Your task to perform on an android device: uninstall "Walmart Shopping & Grocery" Image 0: 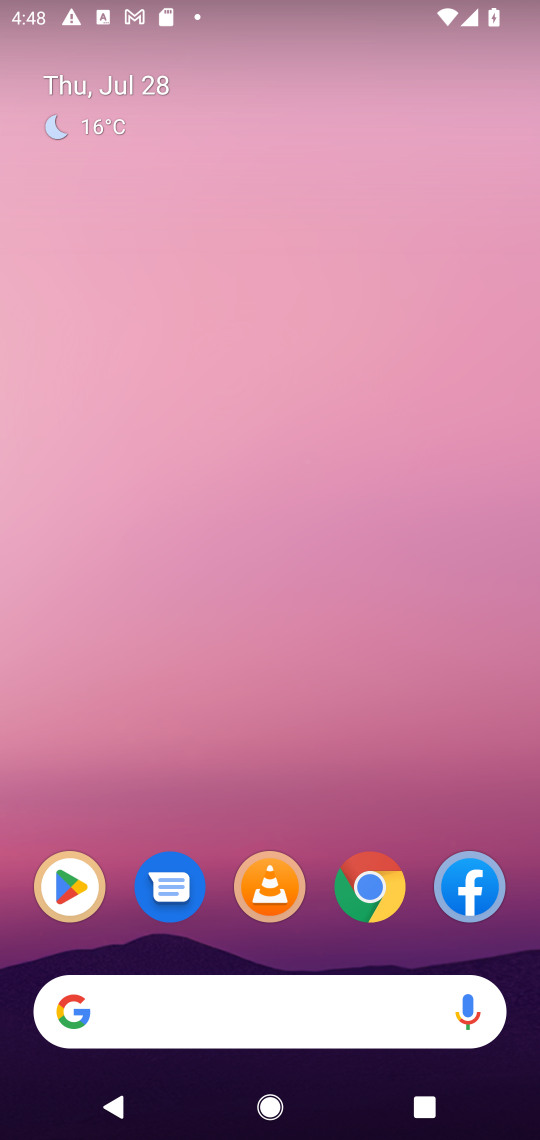
Step 0: click (64, 898)
Your task to perform on an android device: uninstall "Walmart Shopping & Grocery" Image 1: 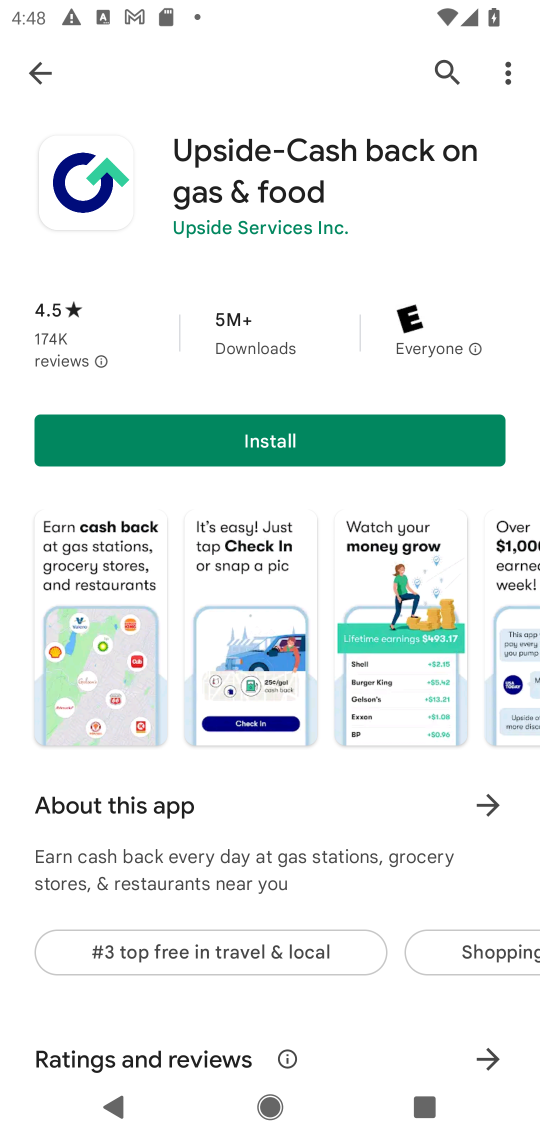
Step 1: click (39, 70)
Your task to perform on an android device: uninstall "Walmart Shopping & Grocery" Image 2: 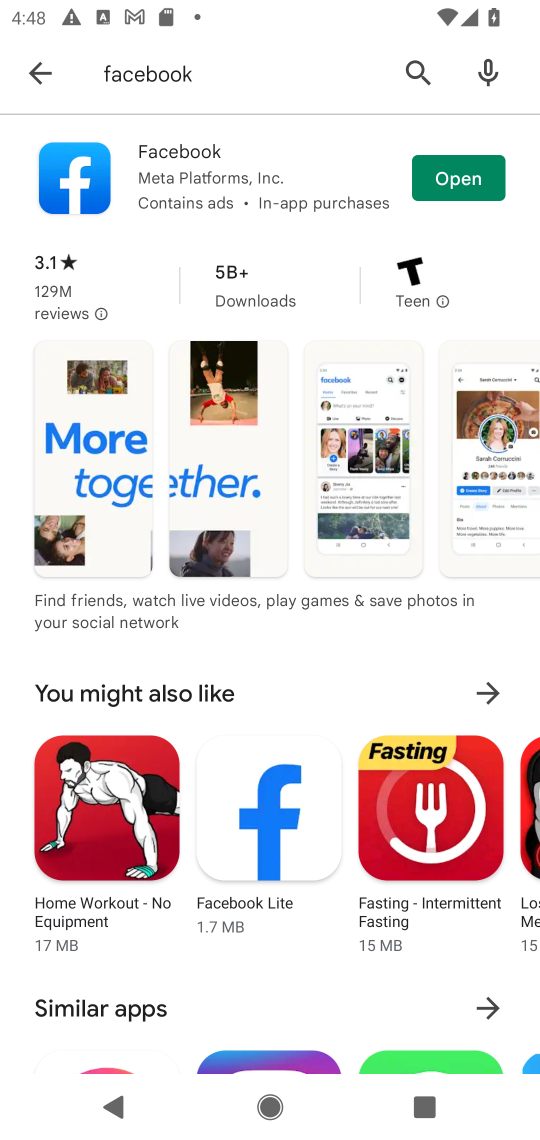
Step 2: click (191, 70)
Your task to perform on an android device: uninstall "Walmart Shopping & Grocery" Image 3: 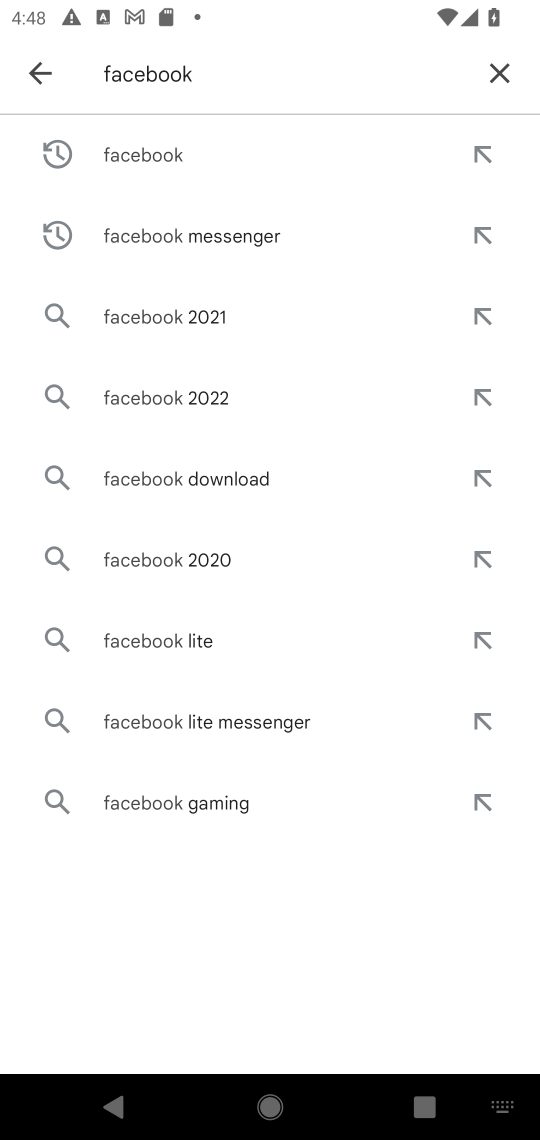
Step 3: click (504, 72)
Your task to perform on an android device: uninstall "Walmart Shopping & Grocery" Image 4: 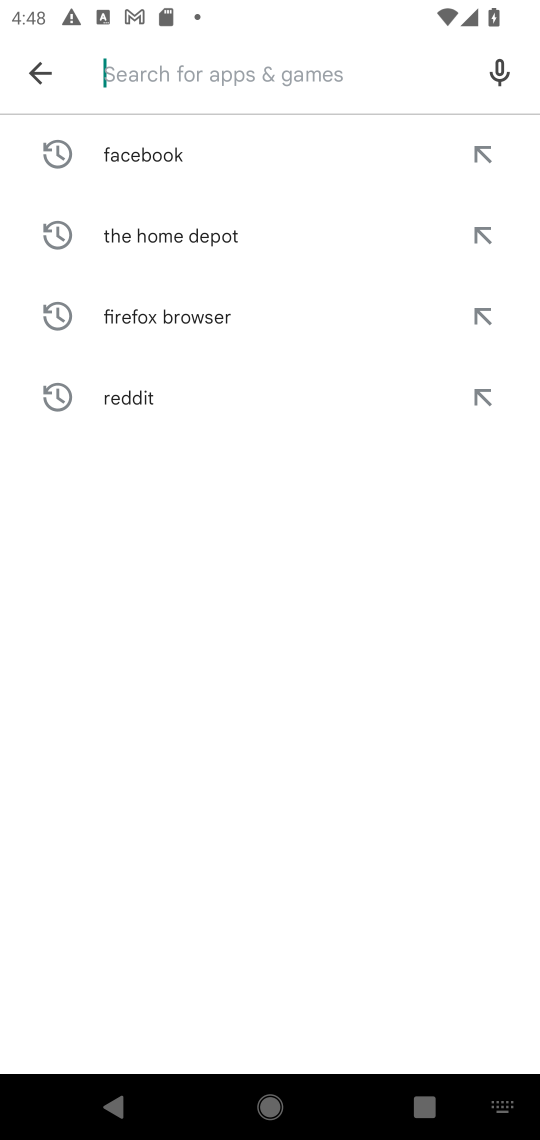
Step 4: type "Walmart "
Your task to perform on an android device: uninstall "Walmart Shopping & Grocery" Image 5: 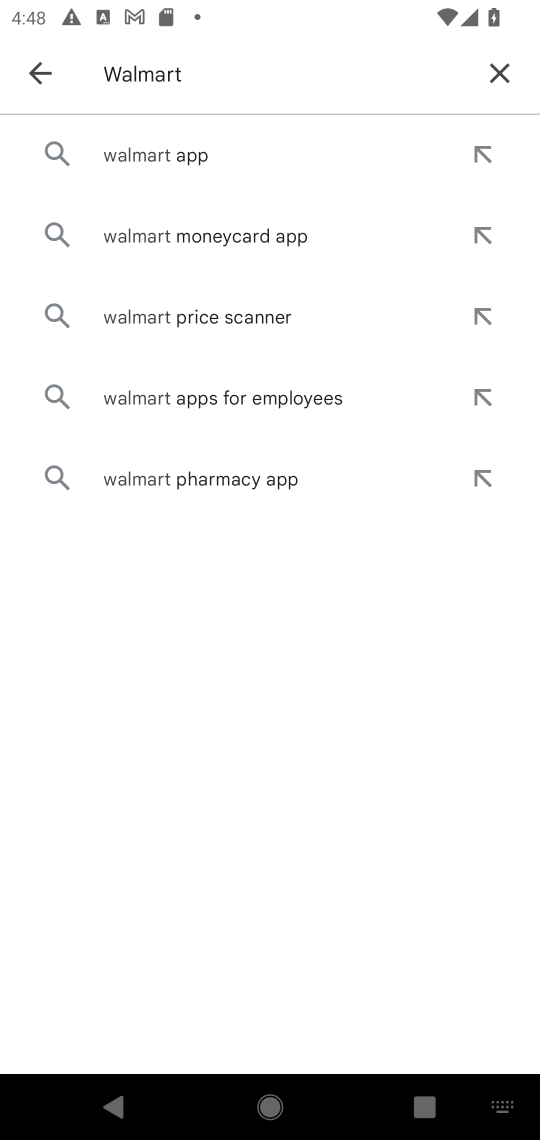
Step 5: click (178, 160)
Your task to perform on an android device: uninstall "Walmart Shopping & Grocery" Image 6: 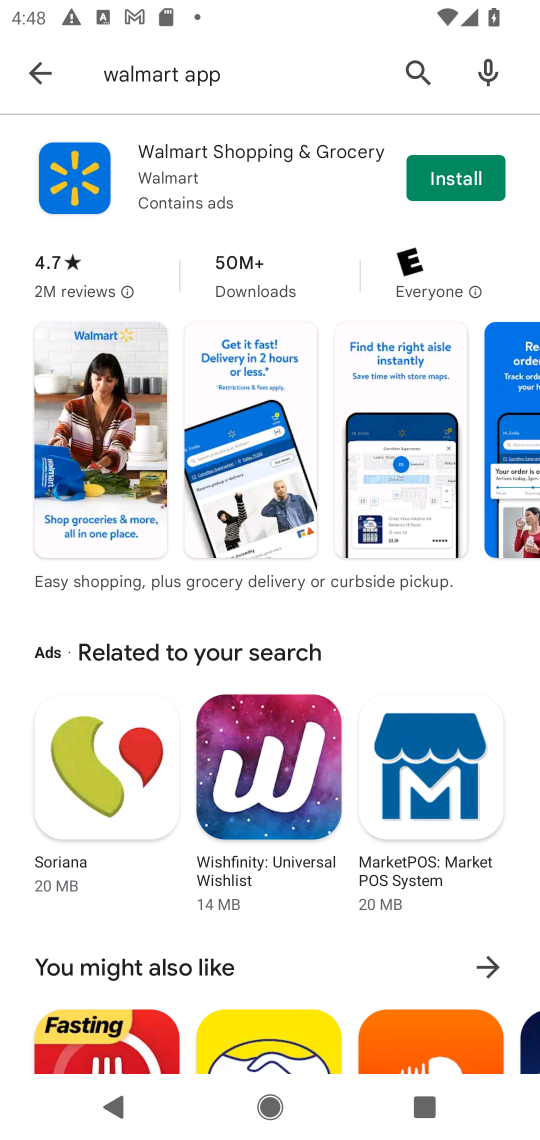
Step 6: task complete